Your task to perform on an android device: open sync settings in chrome Image 0: 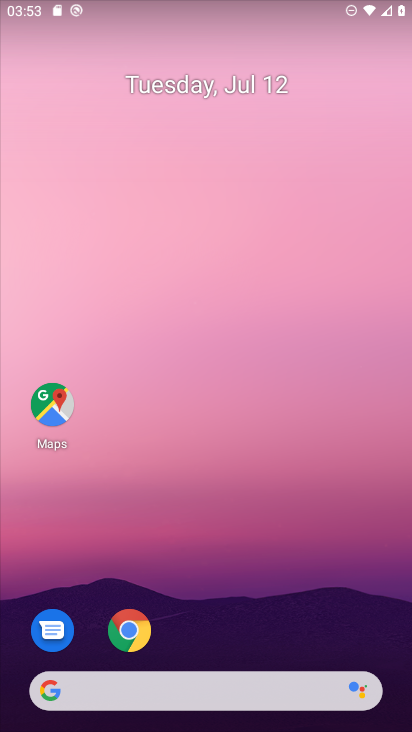
Step 0: click (130, 634)
Your task to perform on an android device: open sync settings in chrome Image 1: 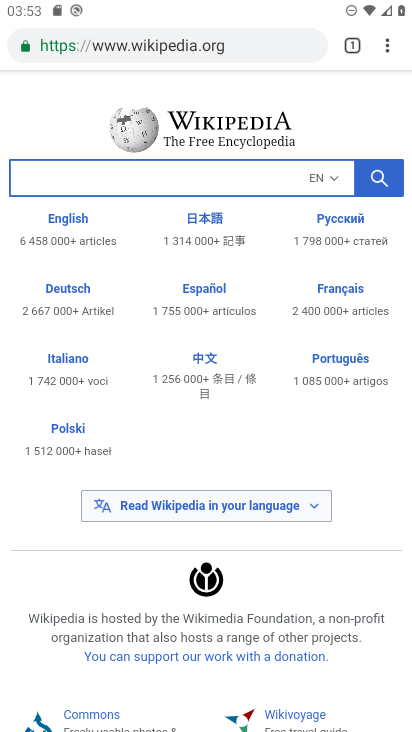
Step 1: click (387, 48)
Your task to perform on an android device: open sync settings in chrome Image 2: 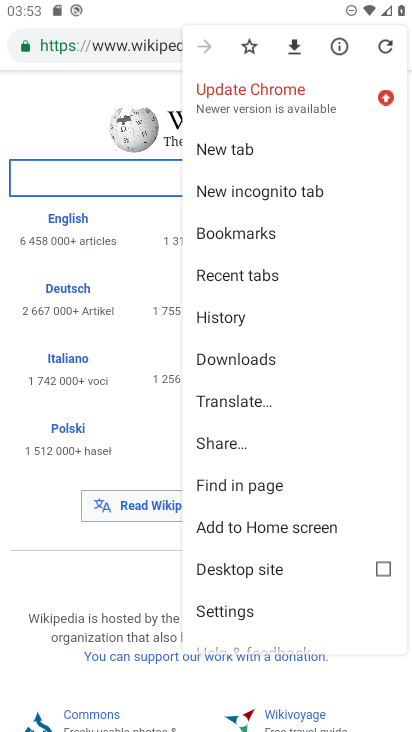
Step 2: click (240, 605)
Your task to perform on an android device: open sync settings in chrome Image 3: 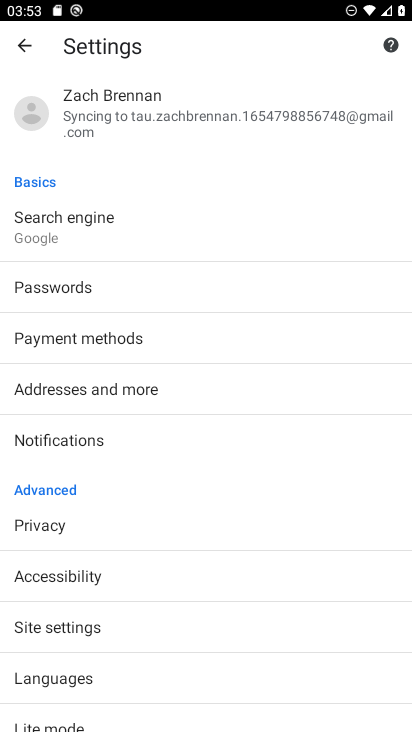
Step 3: click (105, 110)
Your task to perform on an android device: open sync settings in chrome Image 4: 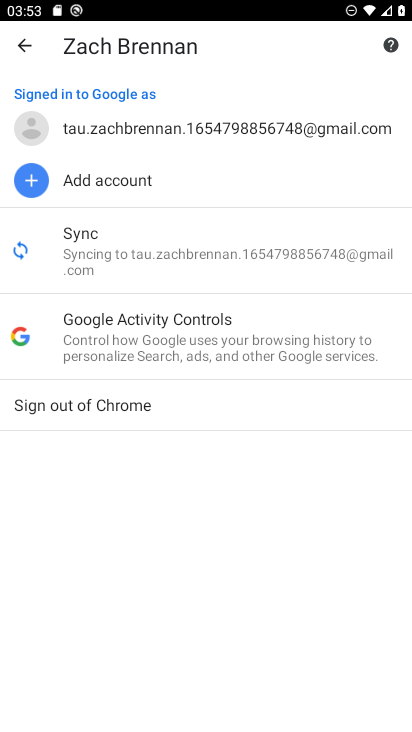
Step 4: click (74, 246)
Your task to perform on an android device: open sync settings in chrome Image 5: 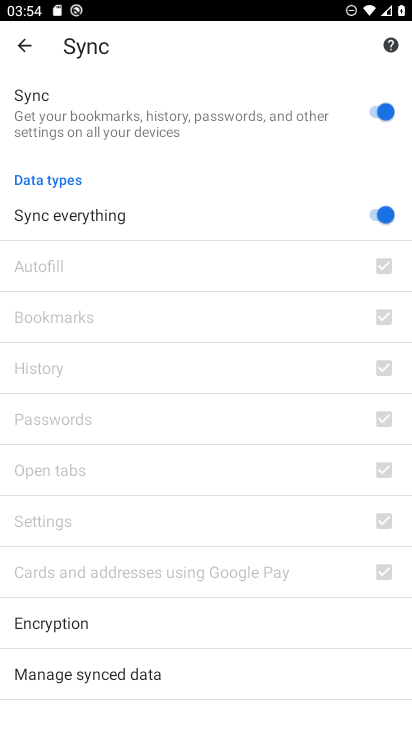
Step 5: task complete